Your task to perform on an android device: Go to location settings Image 0: 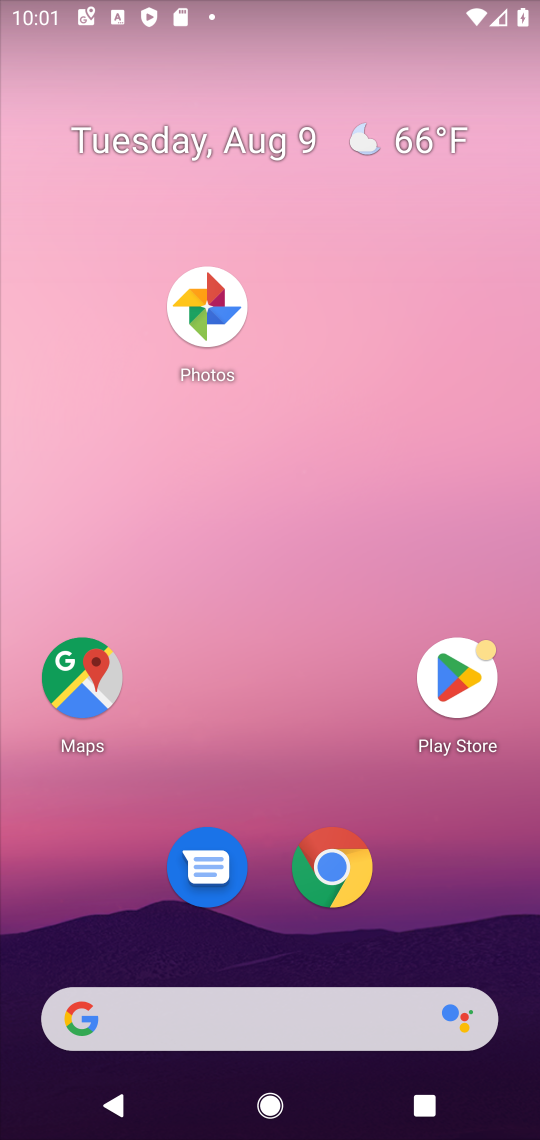
Step 0: drag from (425, 920) to (402, 381)
Your task to perform on an android device: Go to location settings Image 1: 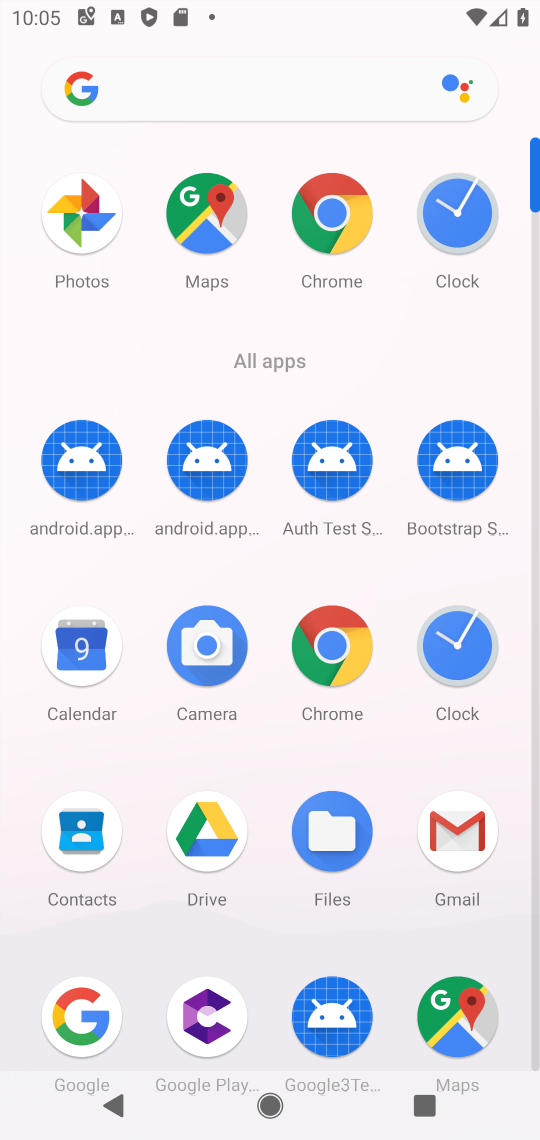
Step 1: drag from (205, 823) to (232, 368)
Your task to perform on an android device: Go to location settings Image 2: 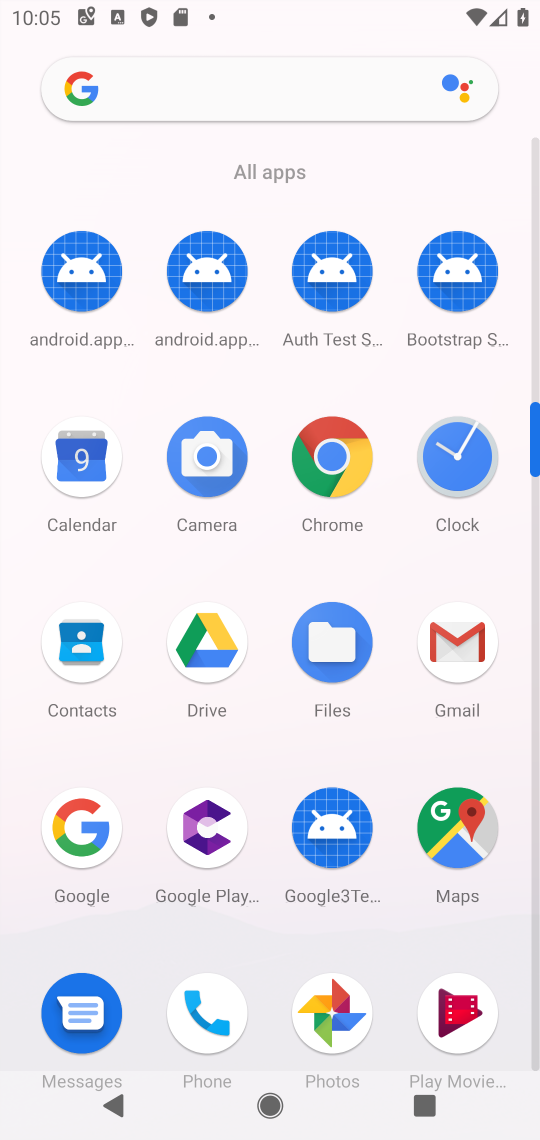
Step 2: drag from (168, 845) to (210, 318)
Your task to perform on an android device: Go to location settings Image 3: 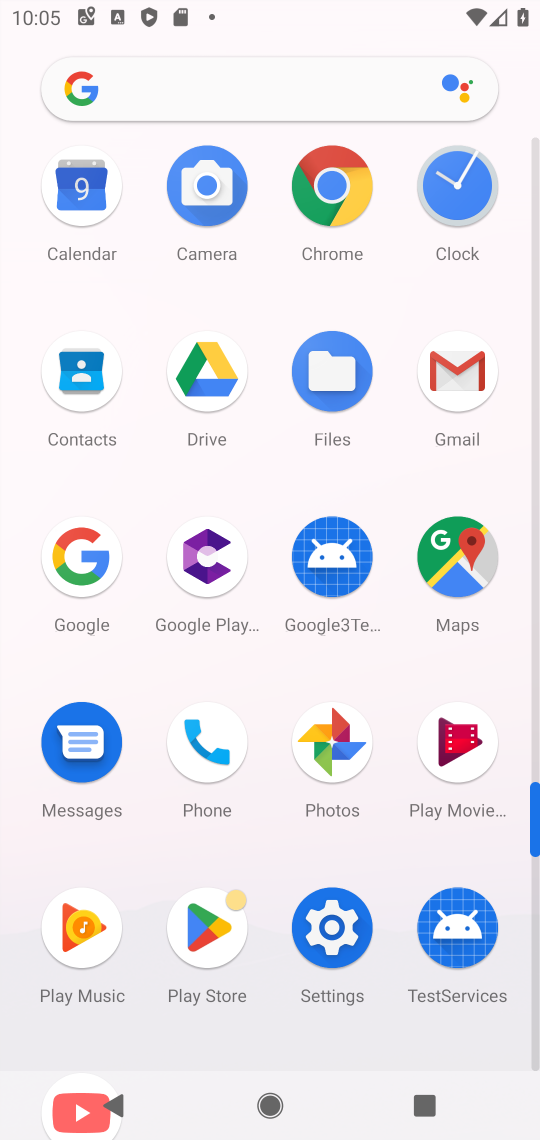
Step 3: click (323, 926)
Your task to perform on an android device: Go to location settings Image 4: 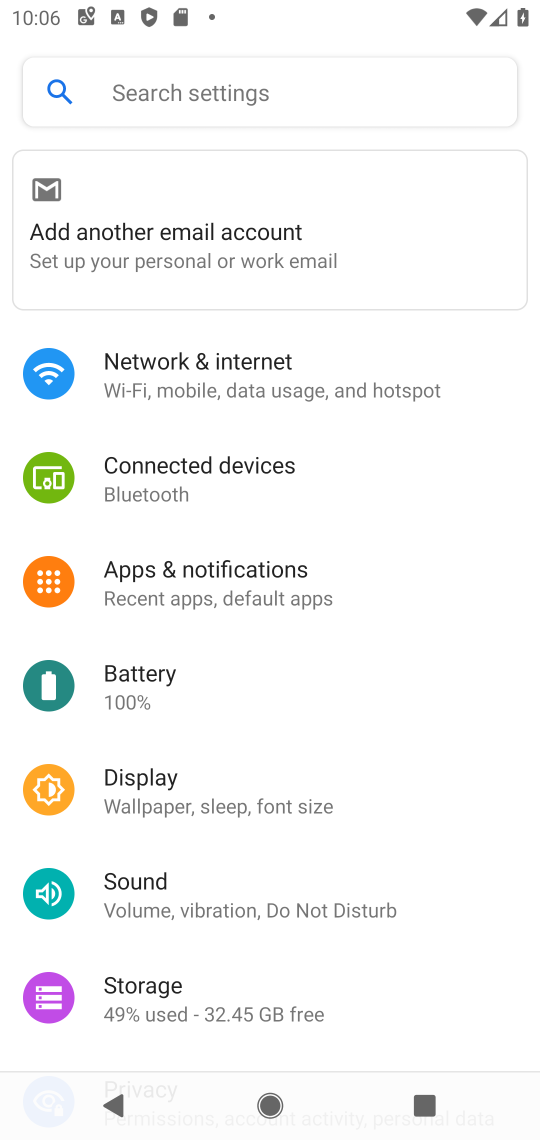
Step 4: drag from (362, 856) to (351, 422)
Your task to perform on an android device: Go to location settings Image 5: 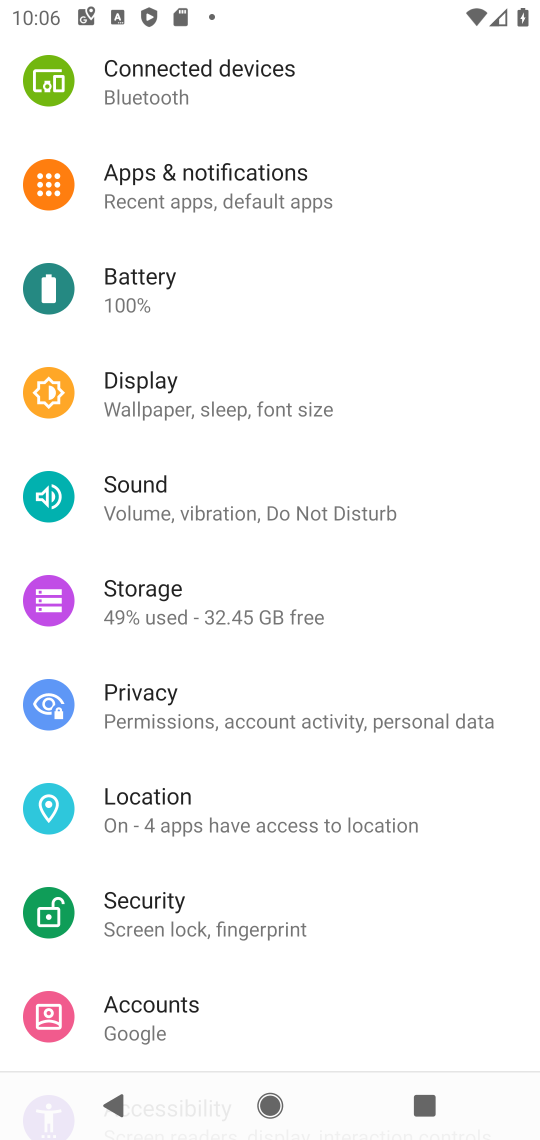
Step 5: click (365, 819)
Your task to perform on an android device: Go to location settings Image 6: 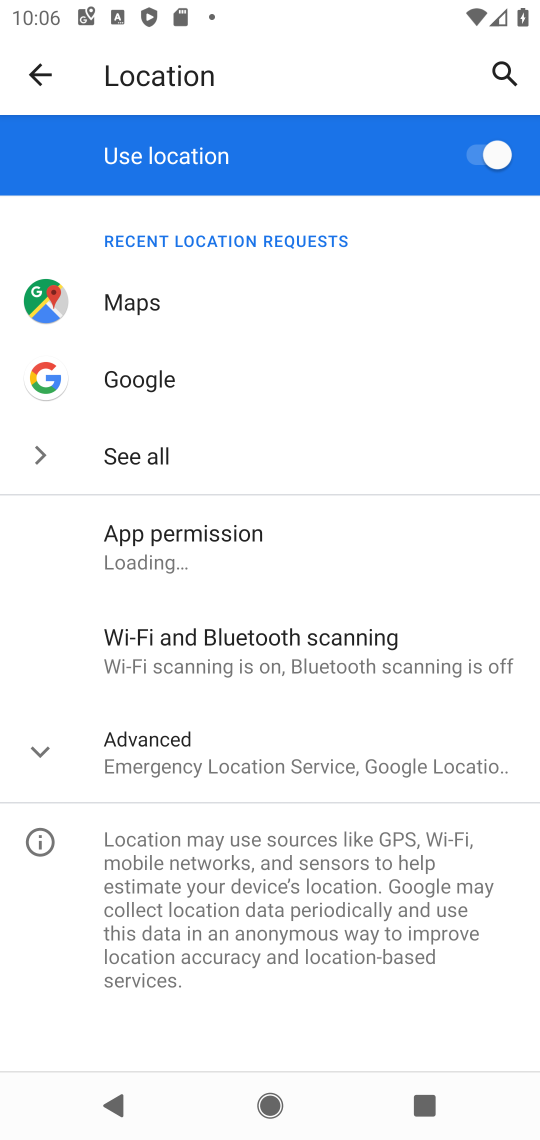
Step 6: task complete